Your task to perform on an android device: set default search engine in the chrome app Image 0: 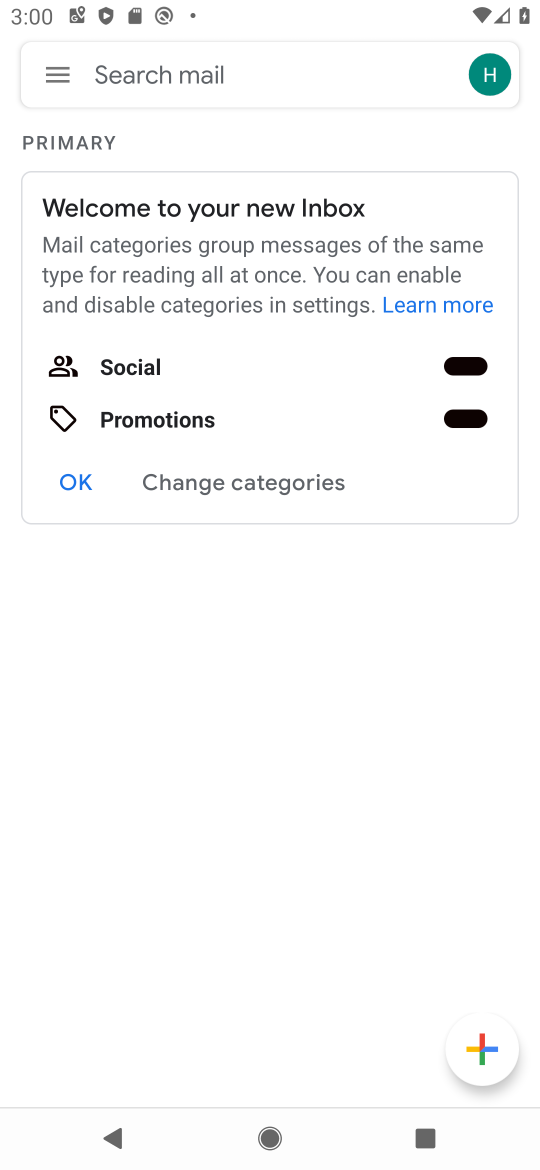
Step 0: press home button
Your task to perform on an android device: set default search engine in the chrome app Image 1: 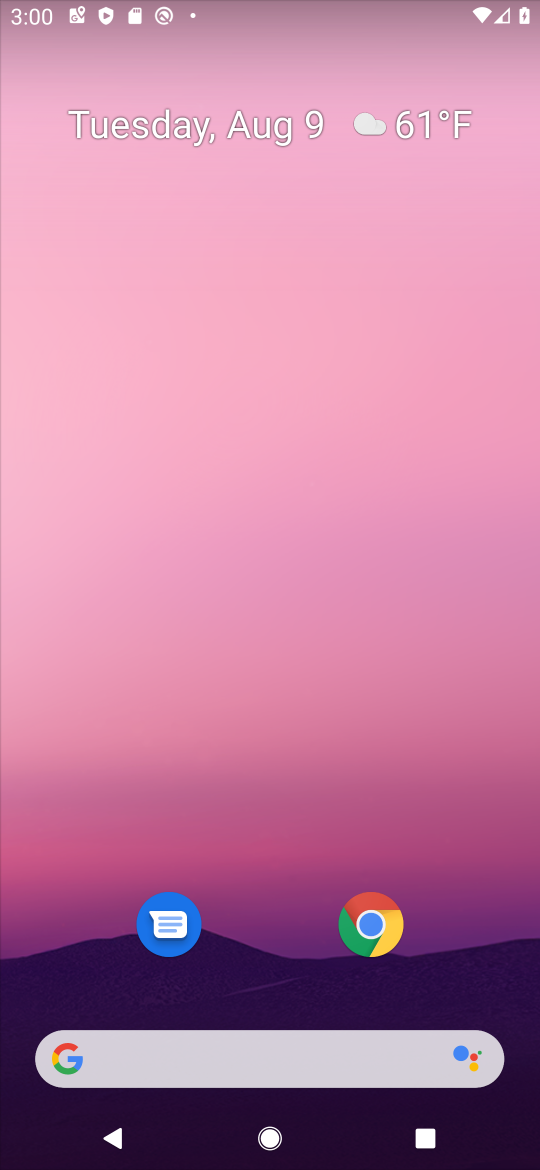
Step 1: click (380, 918)
Your task to perform on an android device: set default search engine in the chrome app Image 2: 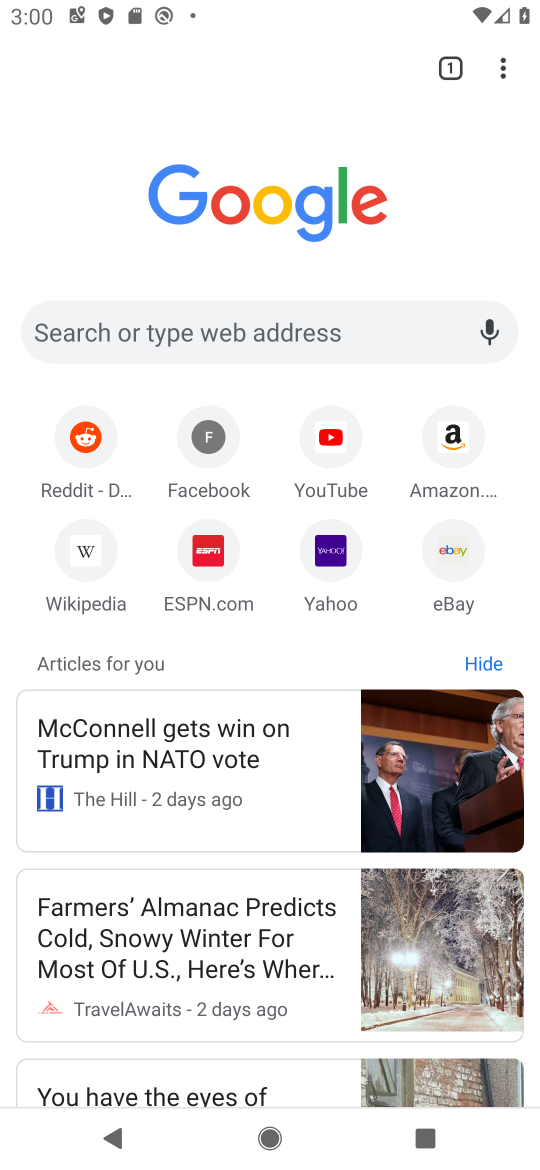
Step 2: click (504, 67)
Your task to perform on an android device: set default search engine in the chrome app Image 3: 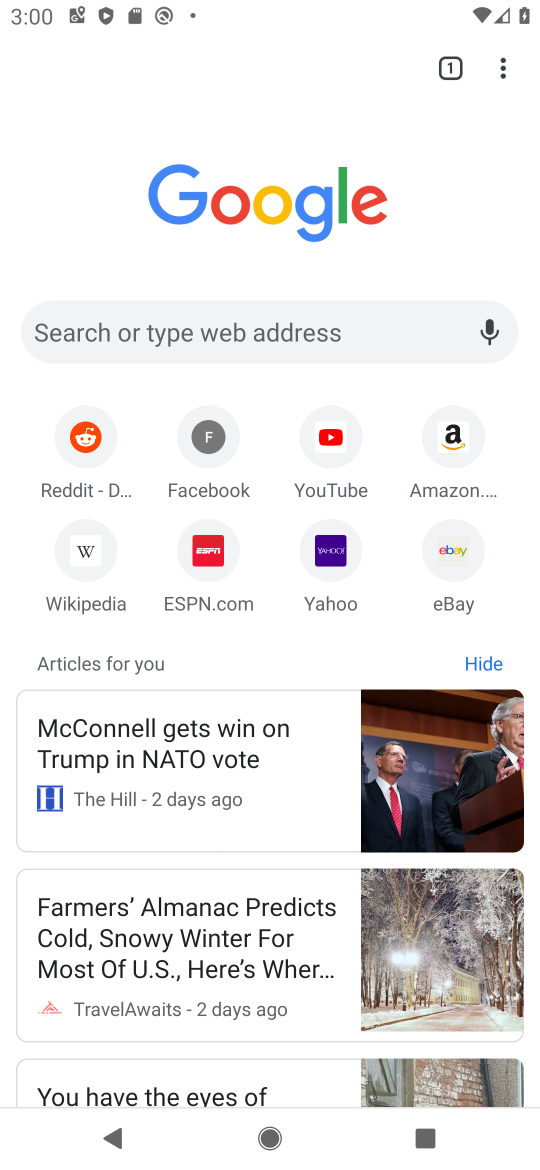
Step 3: click (504, 67)
Your task to perform on an android device: set default search engine in the chrome app Image 4: 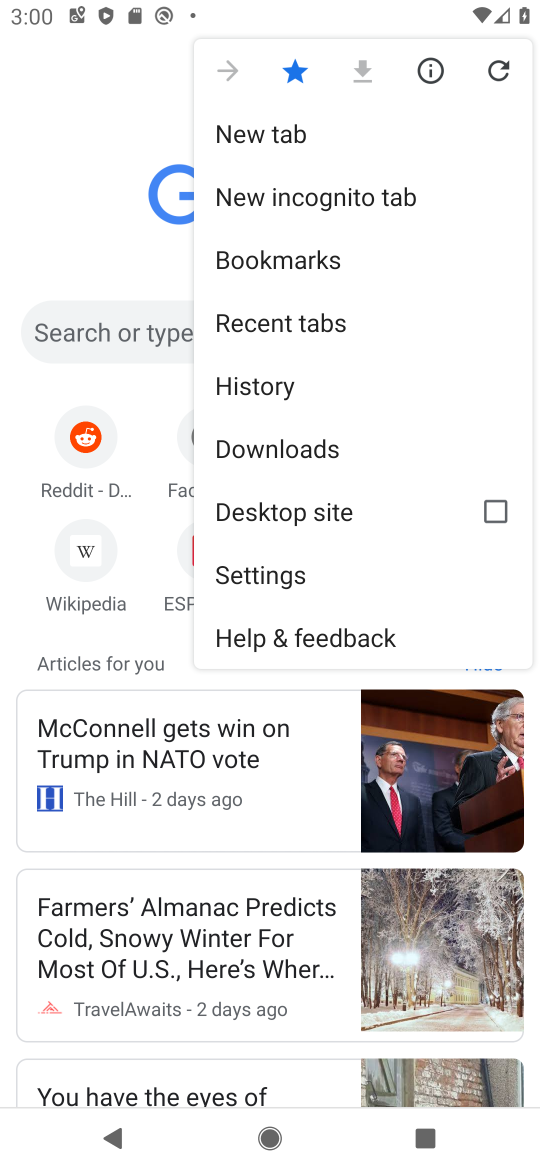
Step 4: click (289, 580)
Your task to perform on an android device: set default search engine in the chrome app Image 5: 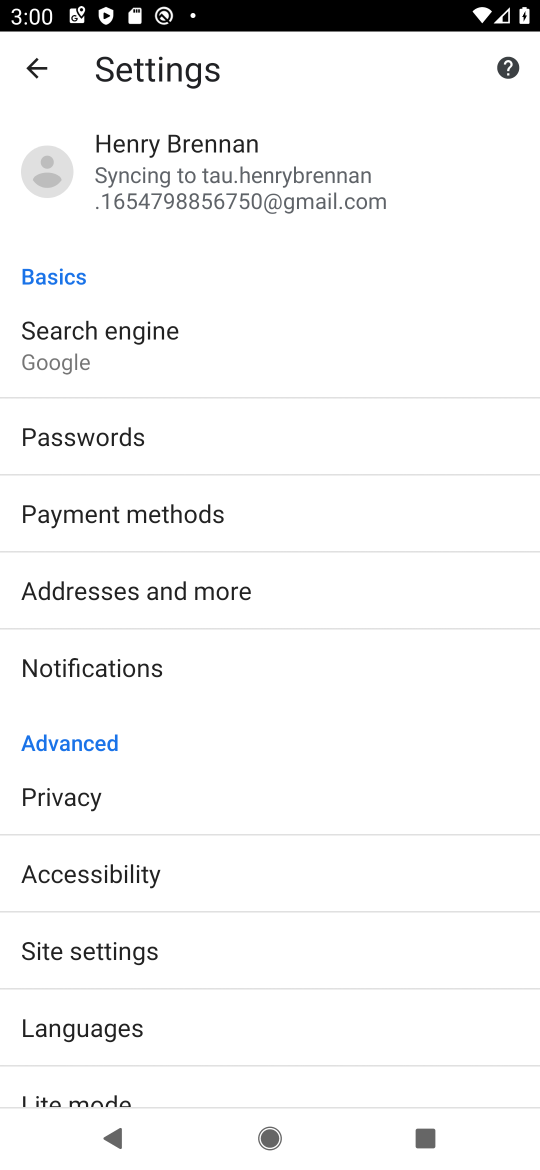
Step 5: click (139, 336)
Your task to perform on an android device: set default search engine in the chrome app Image 6: 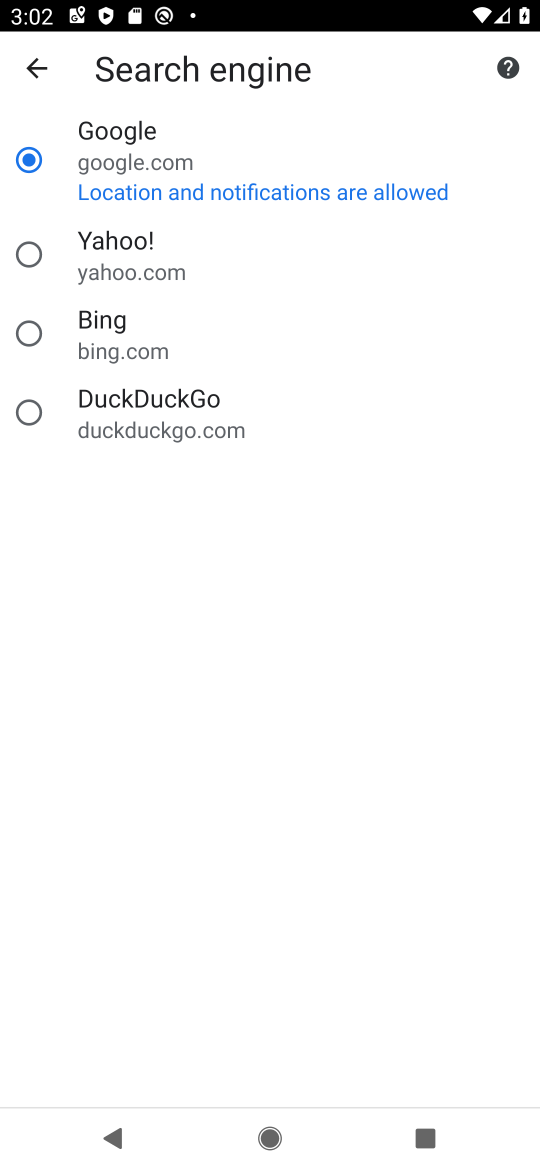
Step 6: task complete